Your task to perform on an android device: install app "Messenger Lite" Image 0: 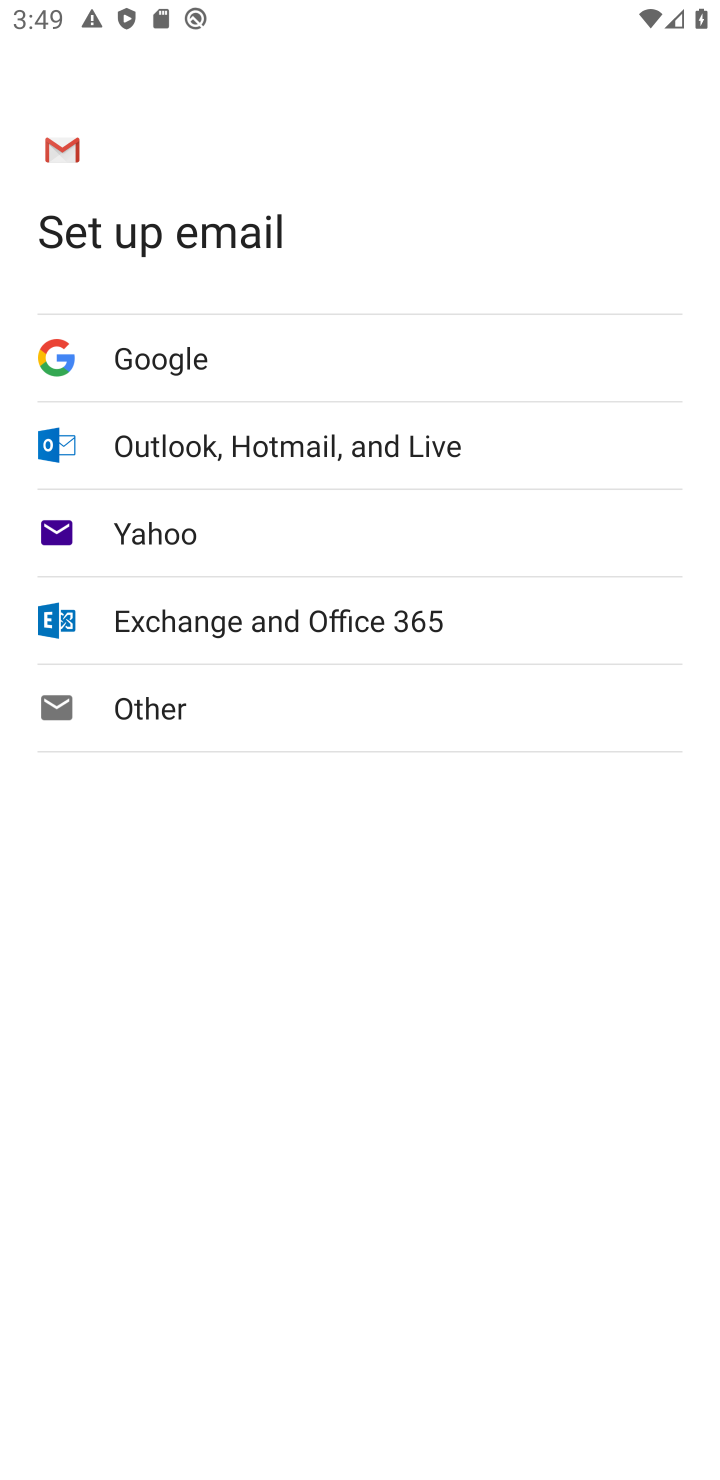
Step 0: press home button
Your task to perform on an android device: install app "Messenger Lite" Image 1: 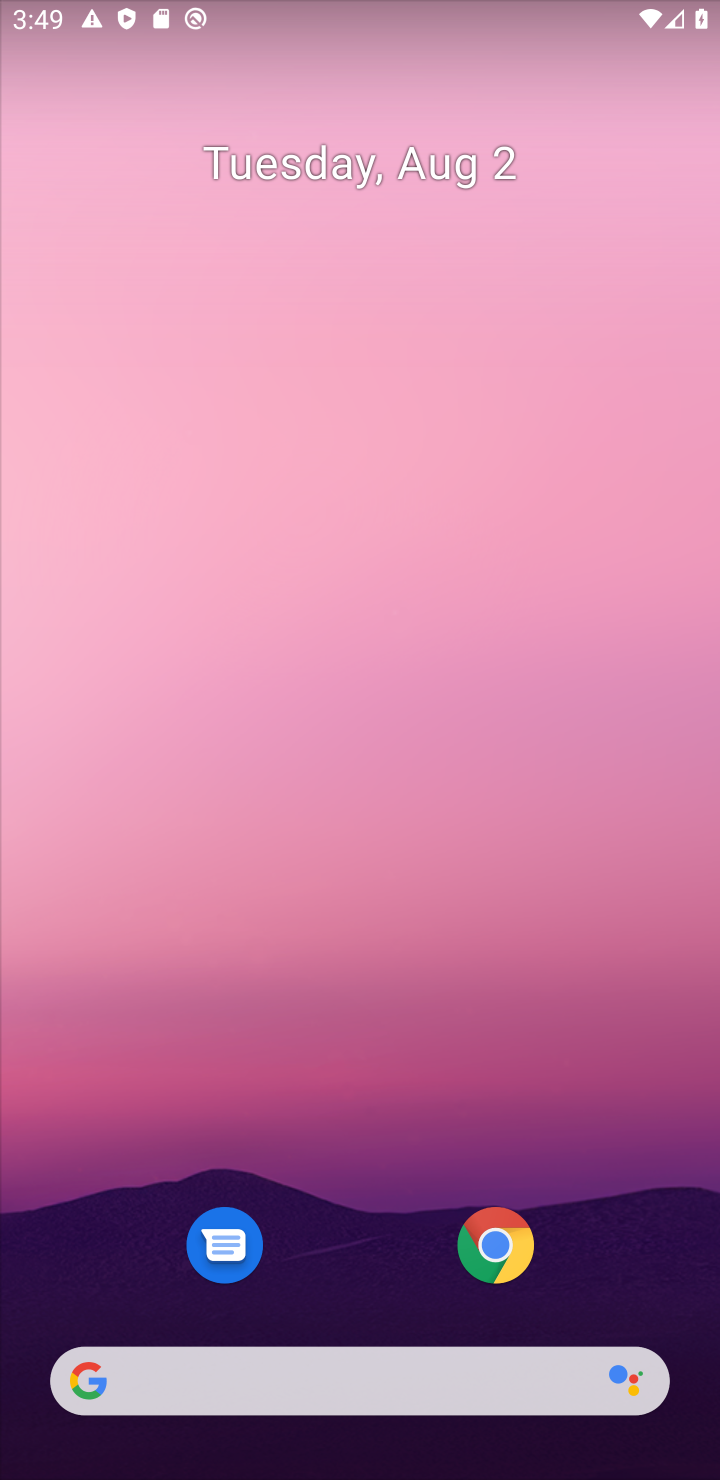
Step 1: drag from (333, 1200) to (364, 146)
Your task to perform on an android device: install app "Messenger Lite" Image 2: 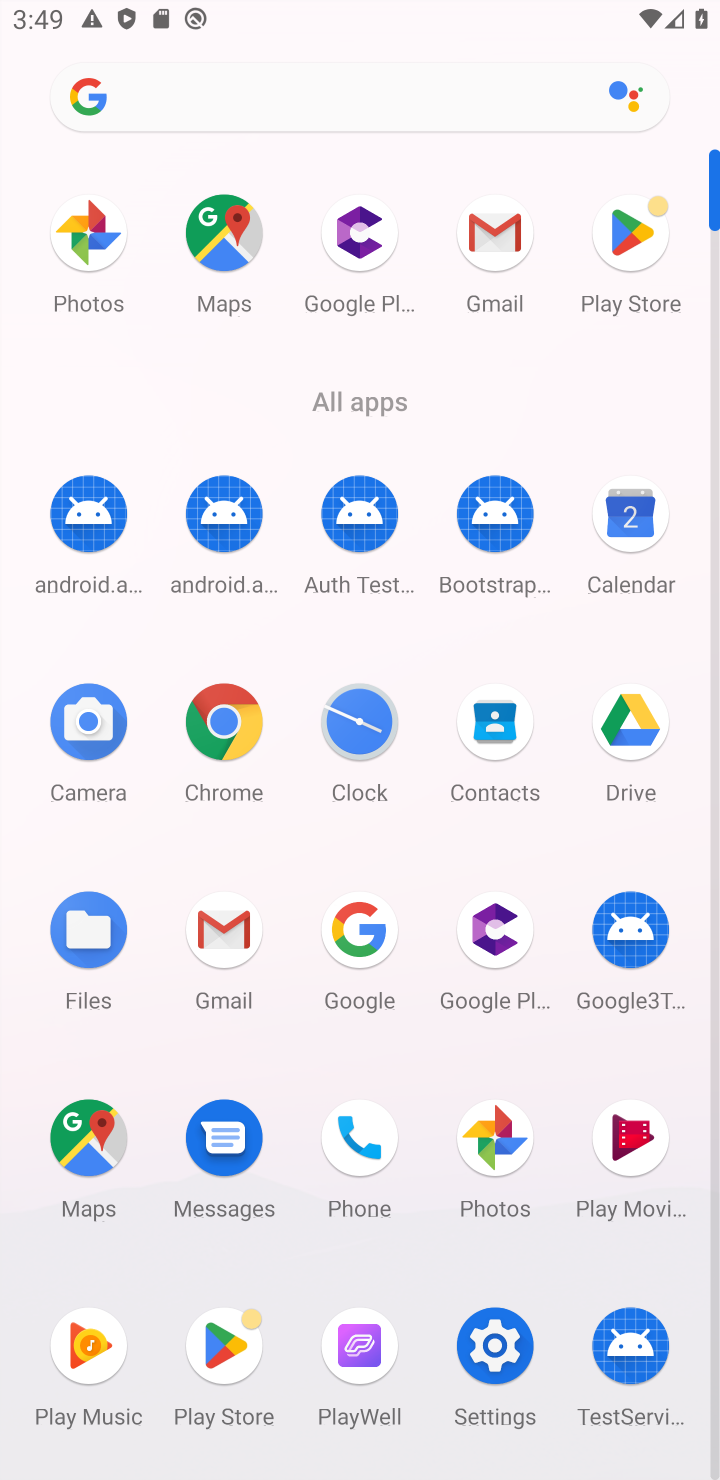
Step 2: click (634, 242)
Your task to perform on an android device: install app "Messenger Lite" Image 3: 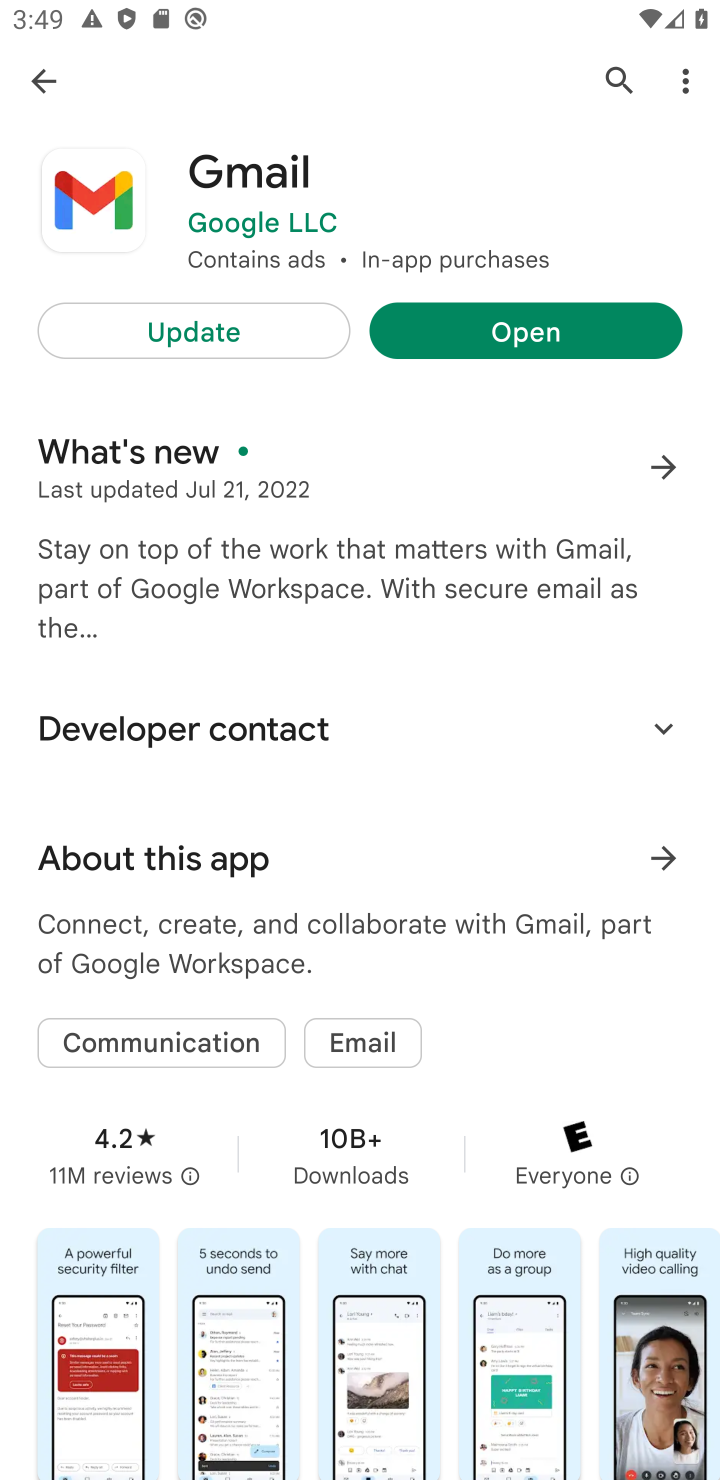
Step 3: click (613, 68)
Your task to perform on an android device: install app "Messenger Lite" Image 4: 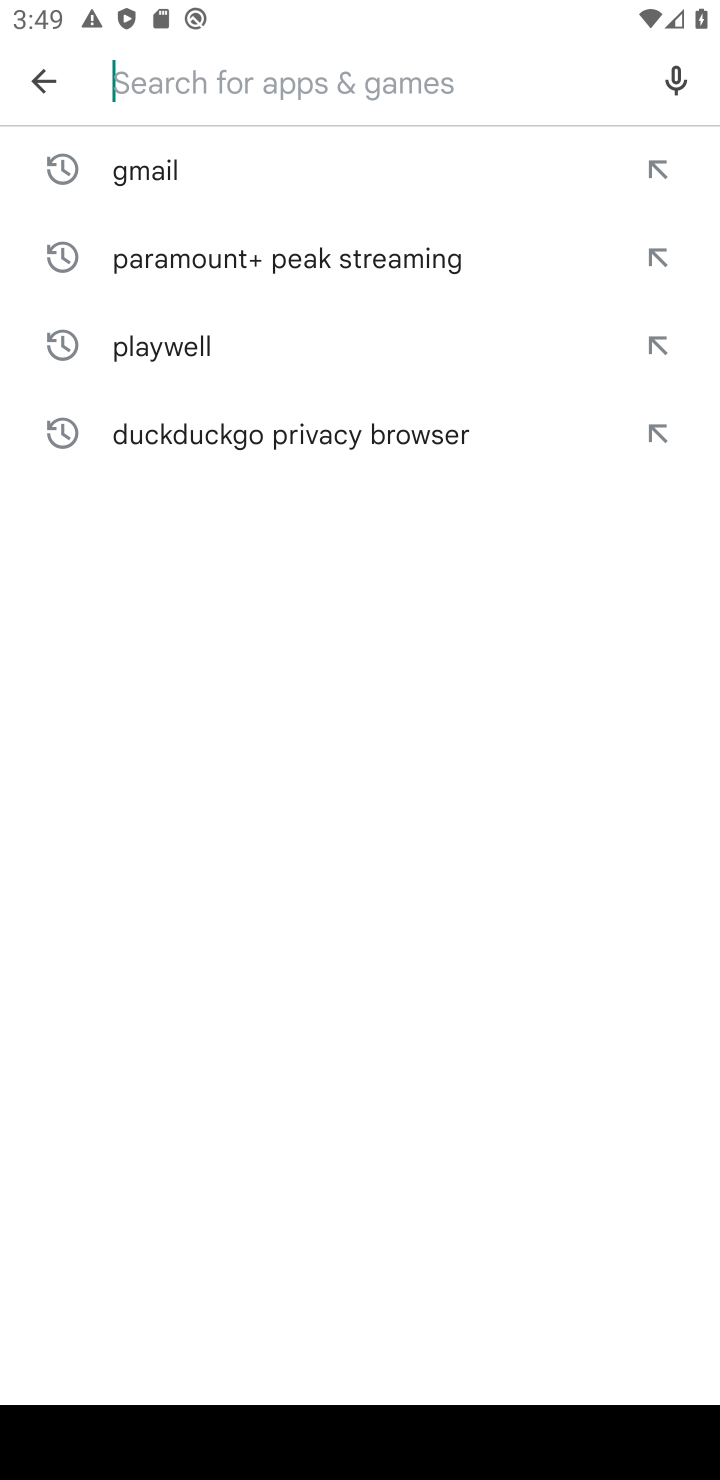
Step 4: type "Messenger Lite"
Your task to perform on an android device: install app "Messenger Lite" Image 5: 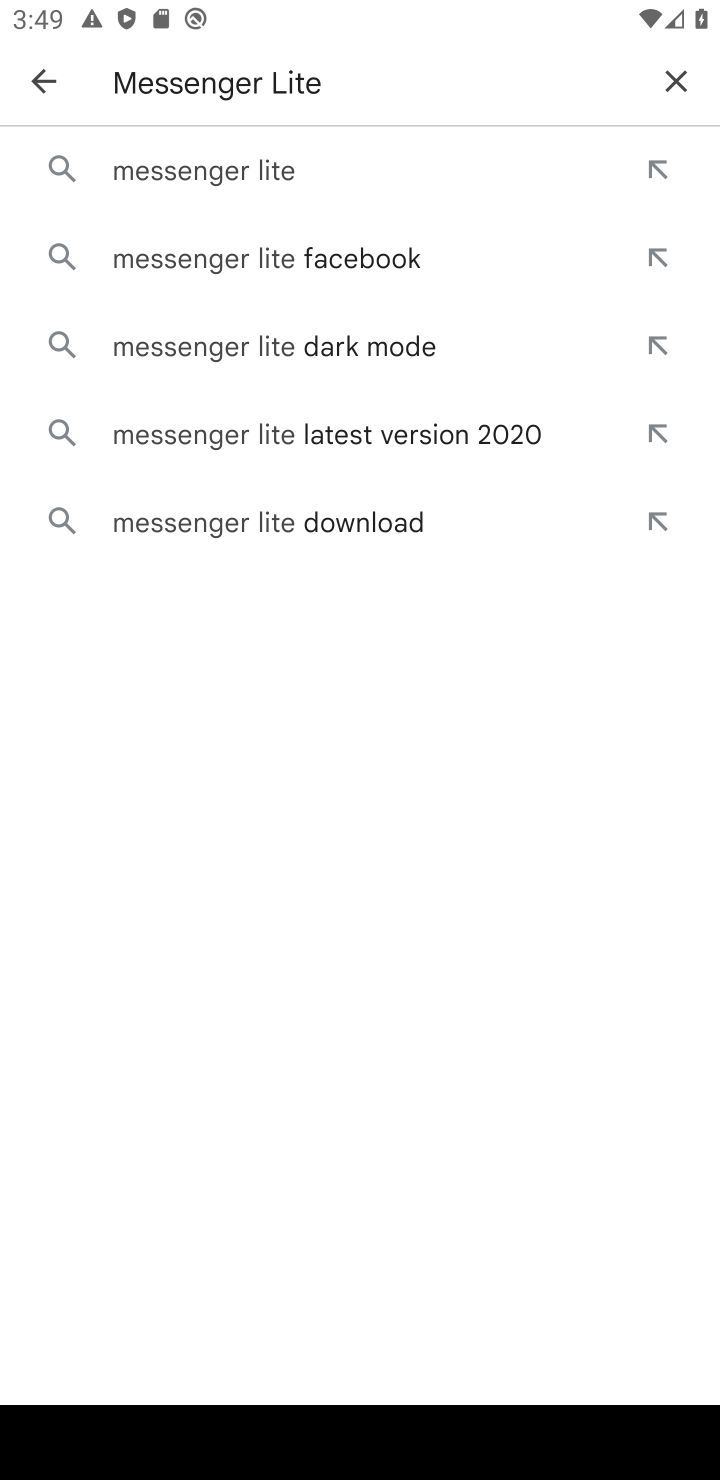
Step 5: click (143, 190)
Your task to perform on an android device: install app "Messenger Lite" Image 6: 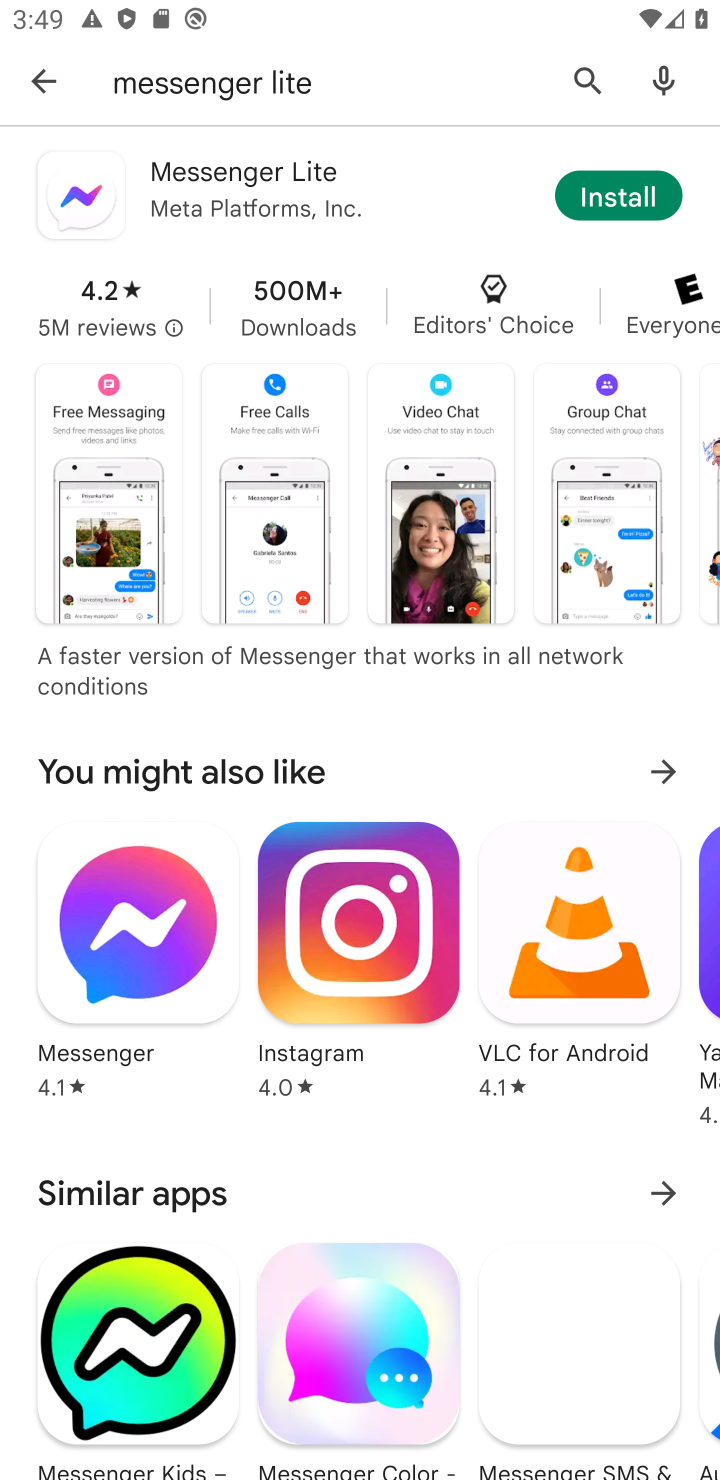
Step 6: click (588, 204)
Your task to perform on an android device: install app "Messenger Lite" Image 7: 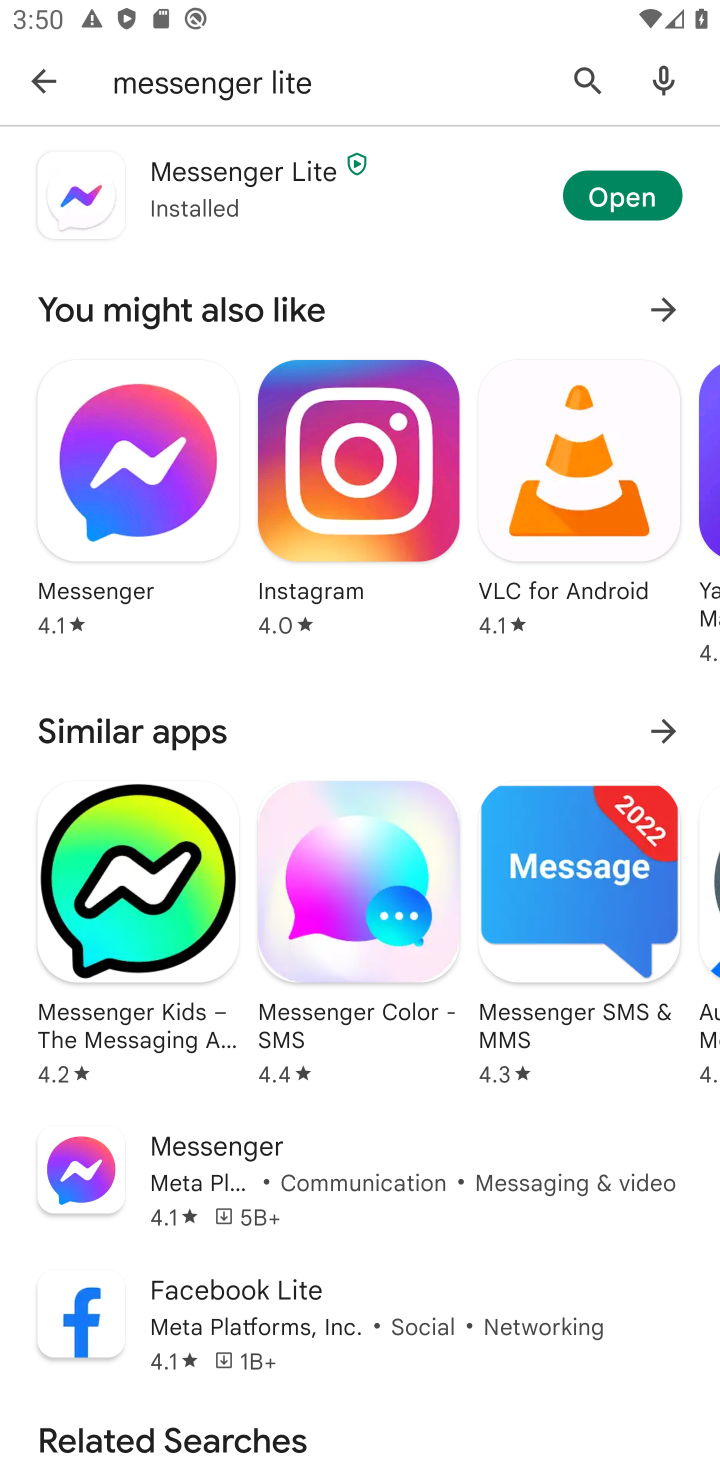
Step 7: task complete